Your task to perform on an android device: open chrome and create a bookmark for the current page Image 0: 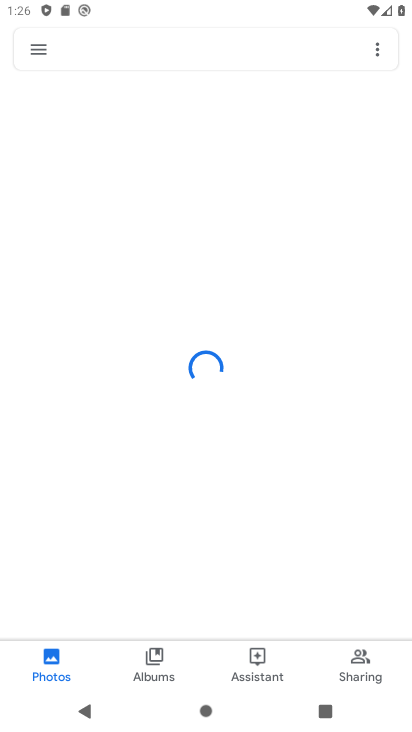
Step 0: press home button
Your task to perform on an android device: open chrome and create a bookmark for the current page Image 1: 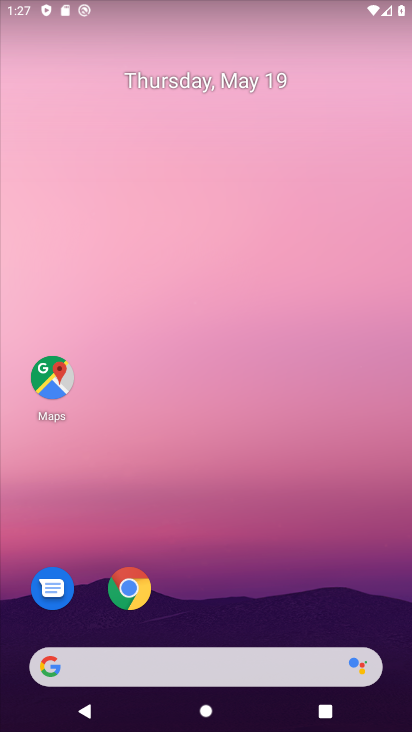
Step 1: click (146, 587)
Your task to perform on an android device: open chrome and create a bookmark for the current page Image 2: 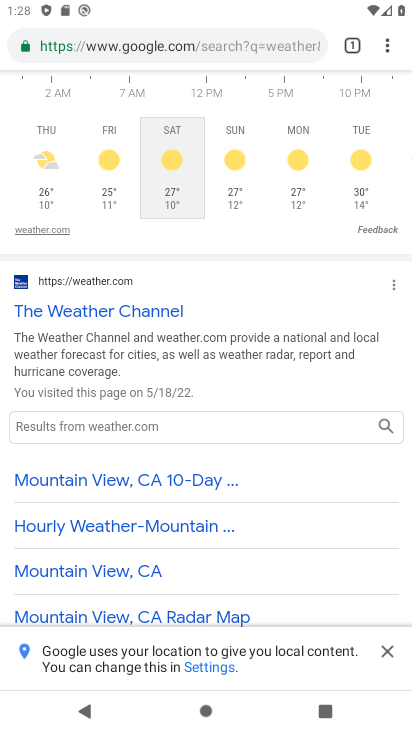
Step 2: task complete